Your task to perform on an android device: Show me popular games on the Play Store Image 0: 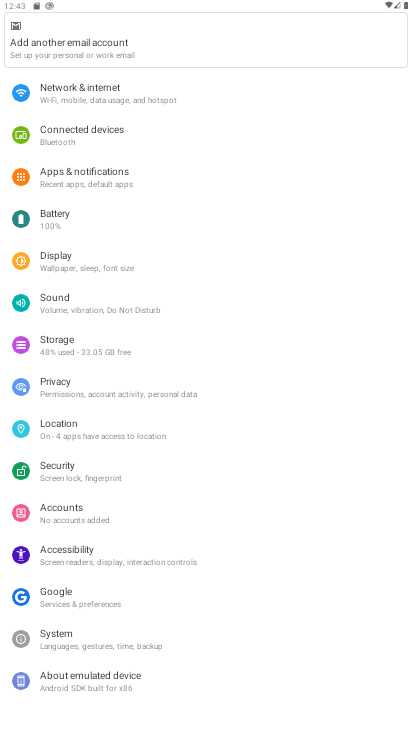
Step 0: press home button
Your task to perform on an android device: Show me popular games on the Play Store Image 1: 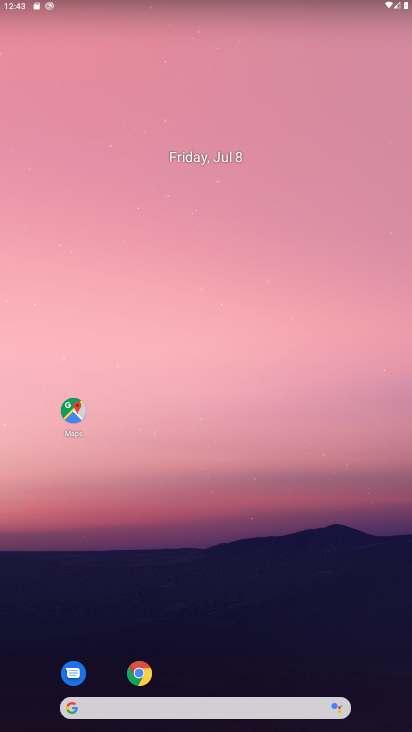
Step 1: drag from (254, 627) to (296, 62)
Your task to perform on an android device: Show me popular games on the Play Store Image 2: 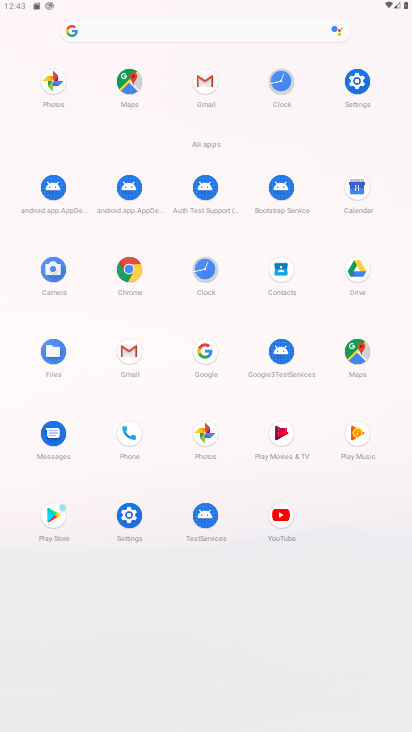
Step 2: click (56, 507)
Your task to perform on an android device: Show me popular games on the Play Store Image 3: 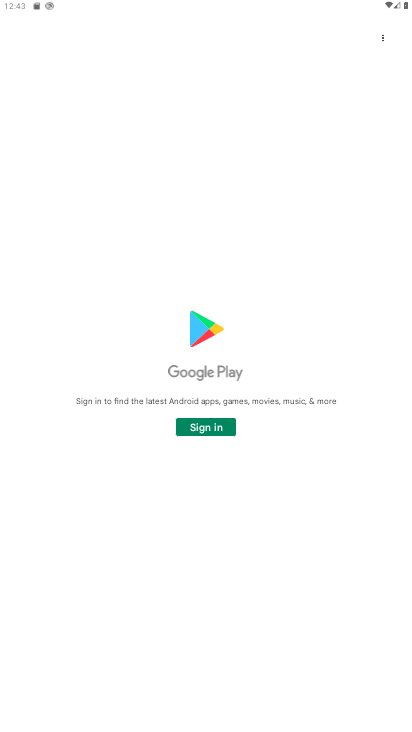
Step 3: task complete